Your task to perform on an android device: add a contact Image 0: 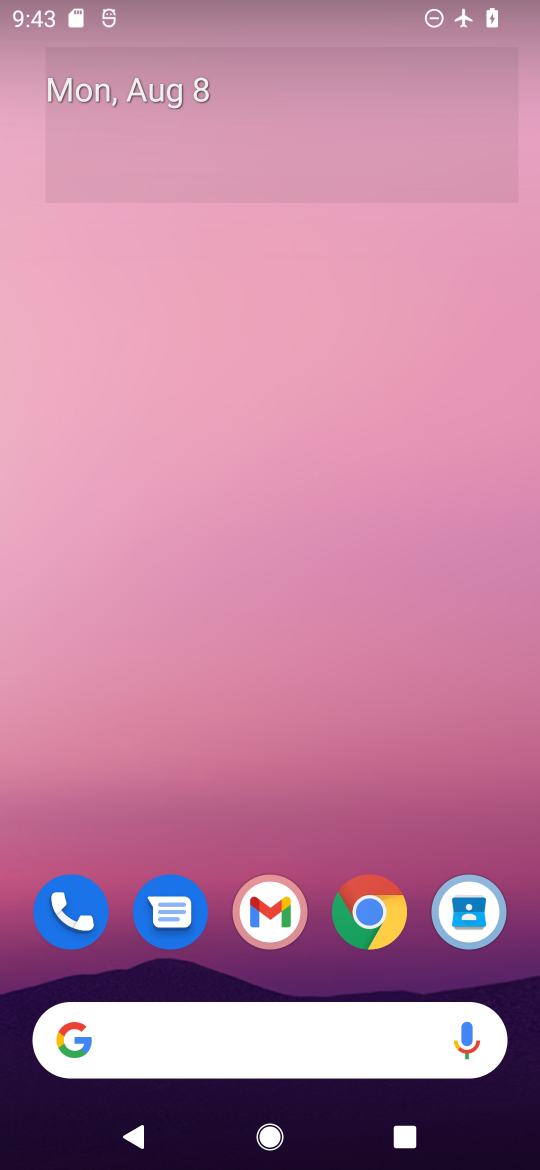
Step 0: drag from (0, 0) to (341, 20)
Your task to perform on an android device: add a contact Image 1: 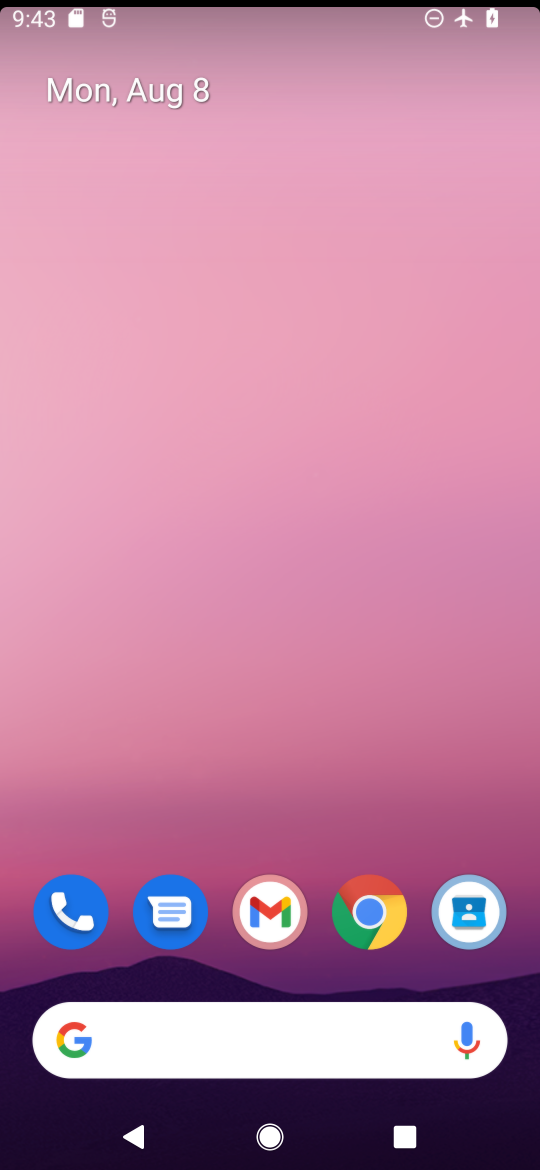
Step 1: drag from (498, 891) to (407, 112)
Your task to perform on an android device: add a contact Image 2: 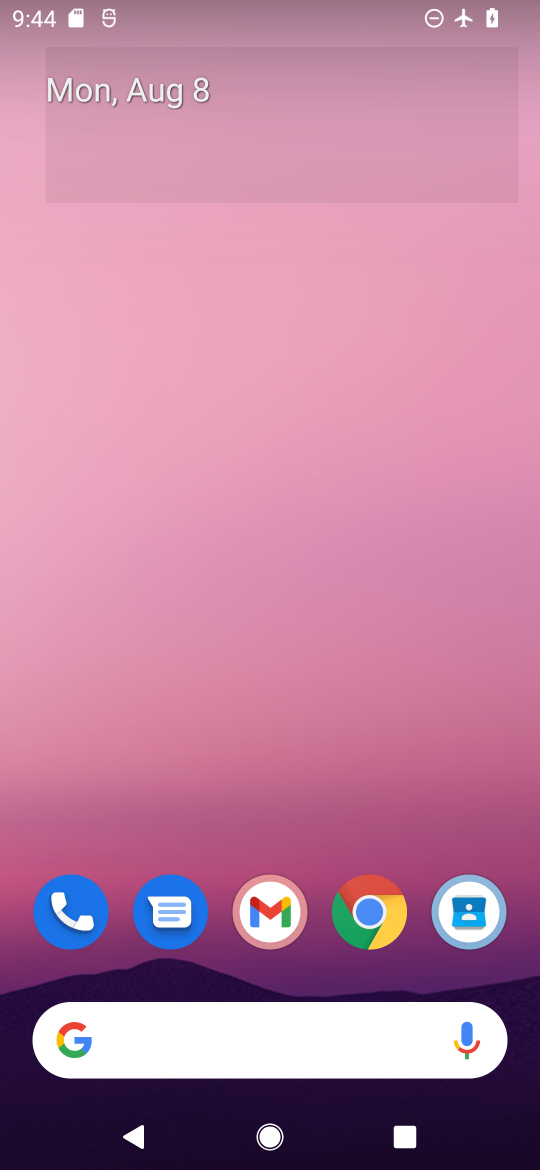
Step 2: drag from (521, 594) to (194, 64)
Your task to perform on an android device: add a contact Image 3: 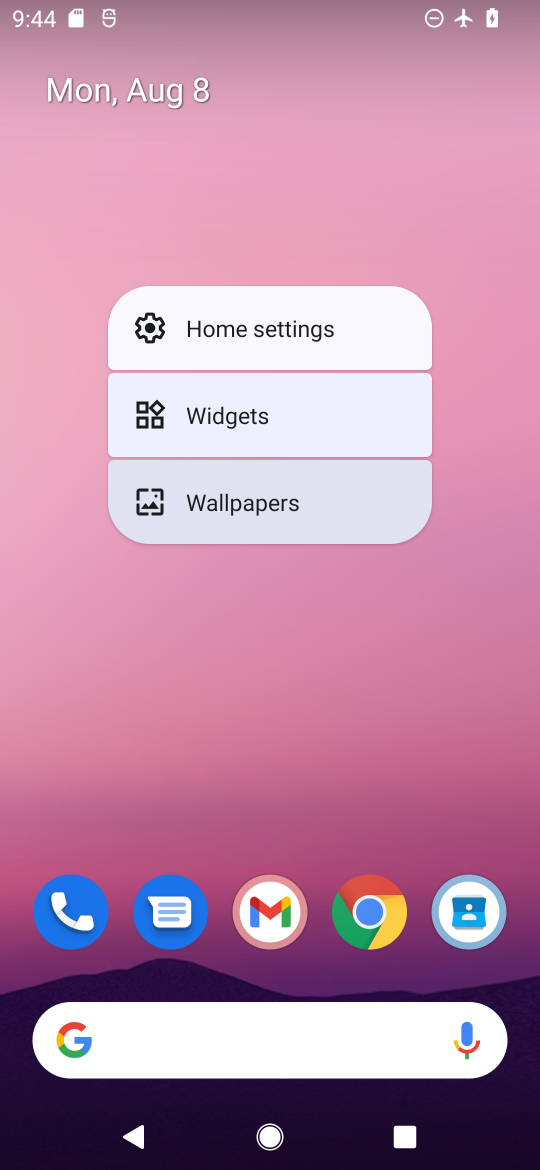
Step 3: click (465, 760)
Your task to perform on an android device: add a contact Image 4: 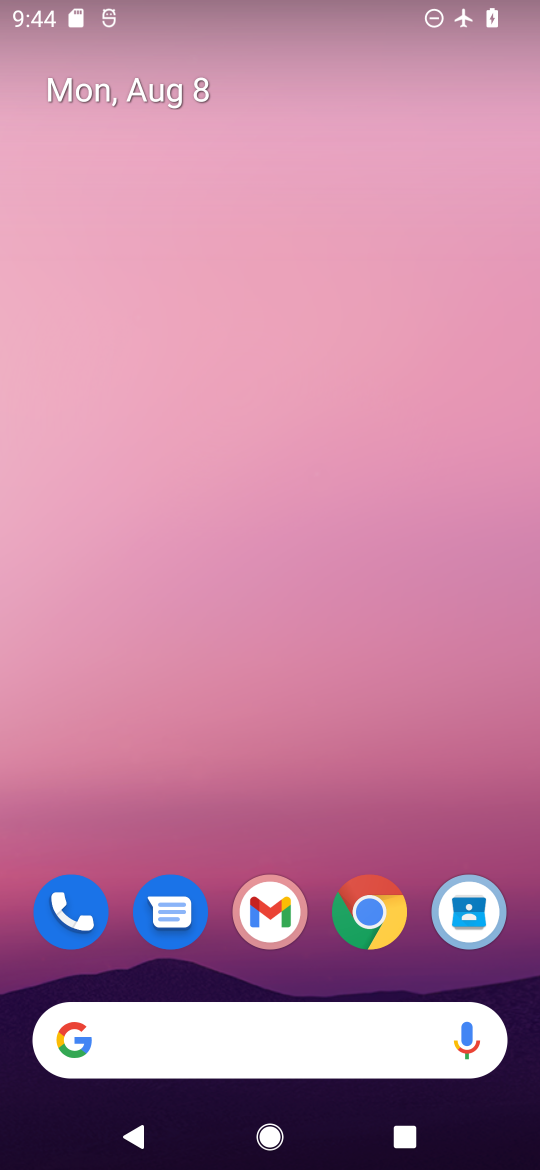
Step 4: task complete